Your task to perform on an android device: turn pop-ups off in chrome Image 0: 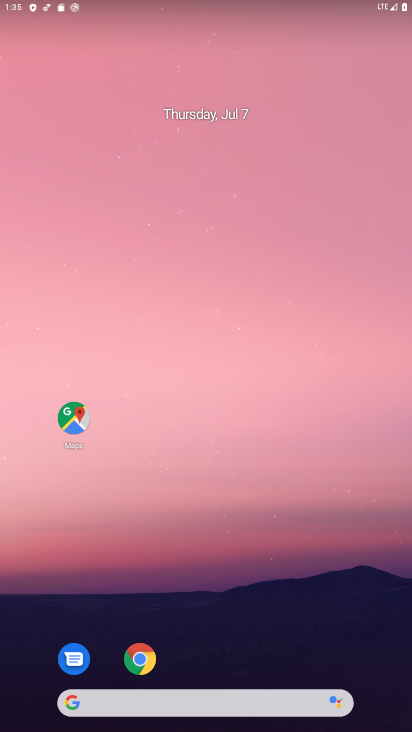
Step 0: click (141, 658)
Your task to perform on an android device: turn pop-ups off in chrome Image 1: 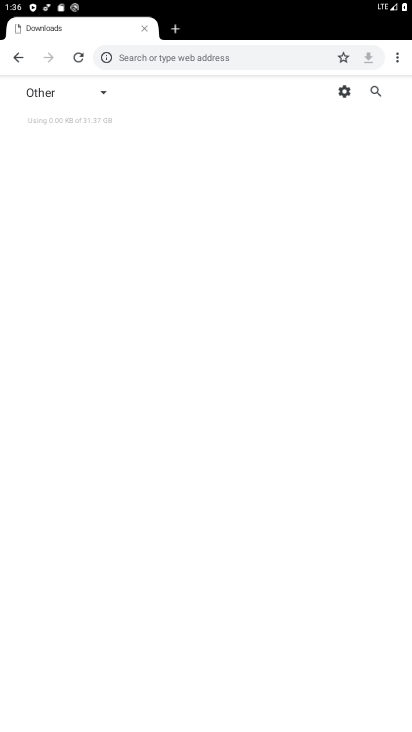
Step 1: click (397, 58)
Your task to perform on an android device: turn pop-ups off in chrome Image 2: 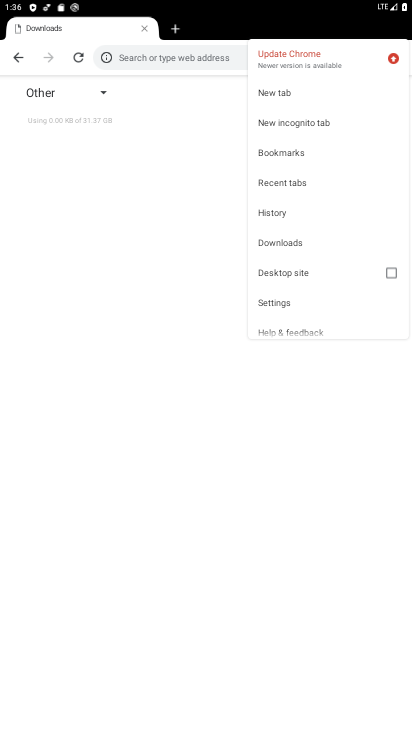
Step 2: click (281, 303)
Your task to perform on an android device: turn pop-ups off in chrome Image 3: 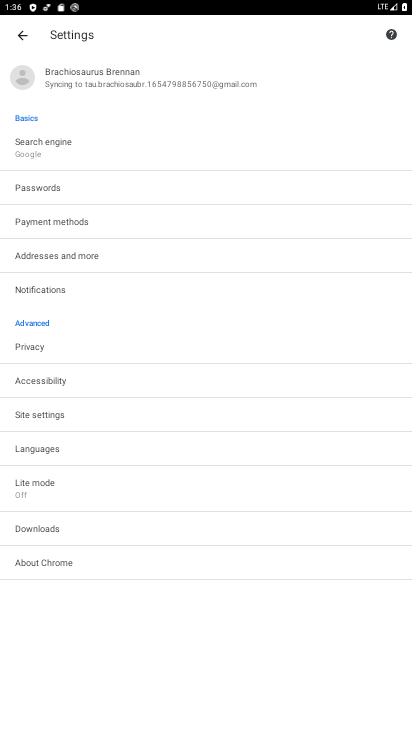
Step 3: click (43, 418)
Your task to perform on an android device: turn pop-ups off in chrome Image 4: 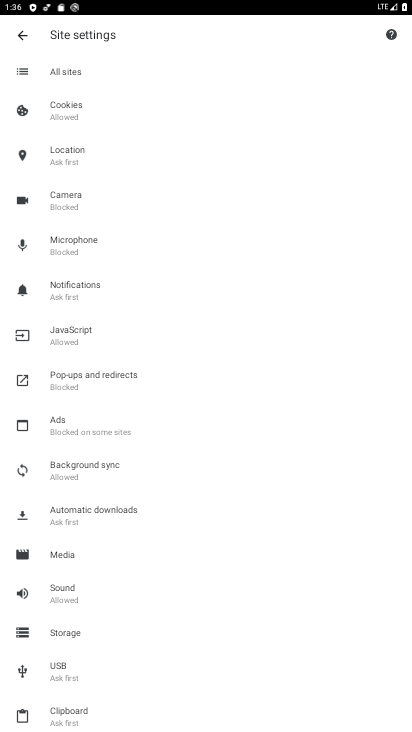
Step 4: click (75, 381)
Your task to perform on an android device: turn pop-ups off in chrome Image 5: 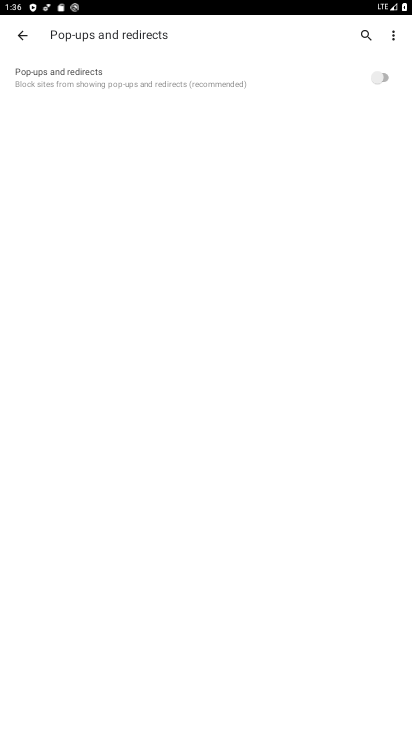
Step 5: task complete